Your task to perform on an android device: turn on translation in the chrome app Image 0: 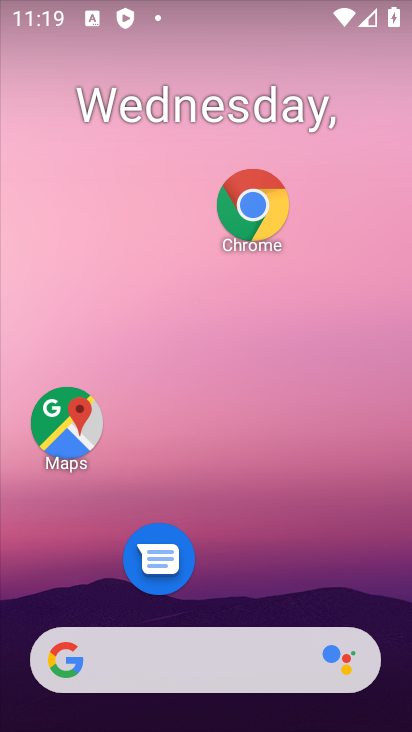
Step 0: drag from (298, 558) to (323, 0)
Your task to perform on an android device: turn on translation in the chrome app Image 1: 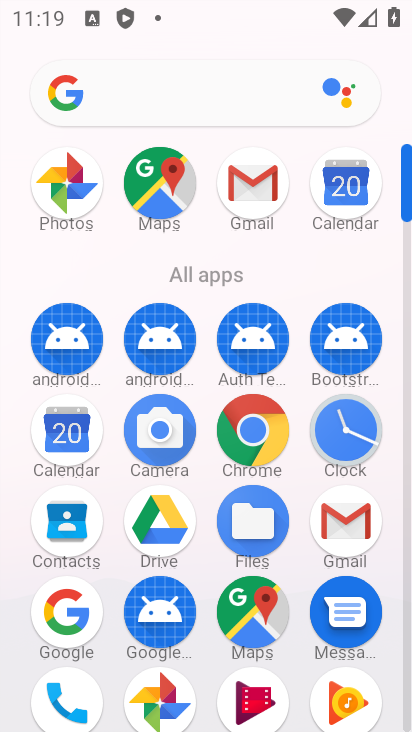
Step 1: click (258, 458)
Your task to perform on an android device: turn on translation in the chrome app Image 2: 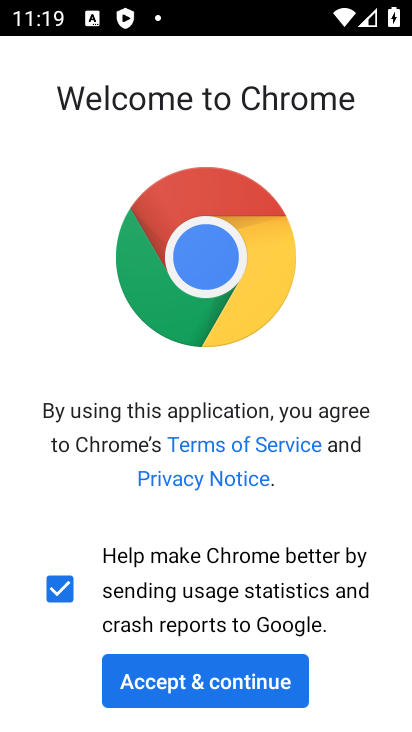
Step 2: click (250, 678)
Your task to perform on an android device: turn on translation in the chrome app Image 3: 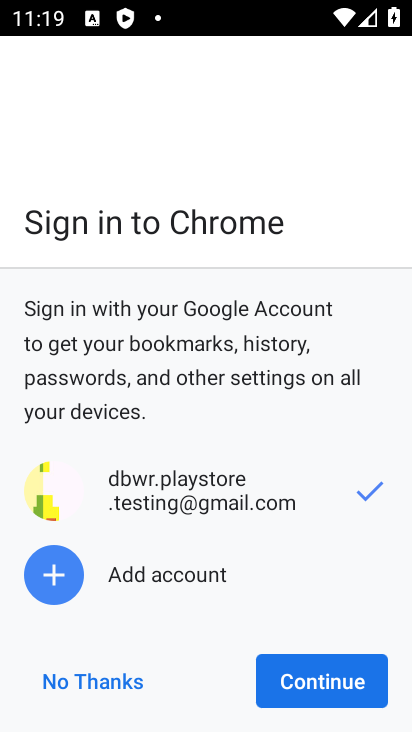
Step 3: click (141, 683)
Your task to perform on an android device: turn on translation in the chrome app Image 4: 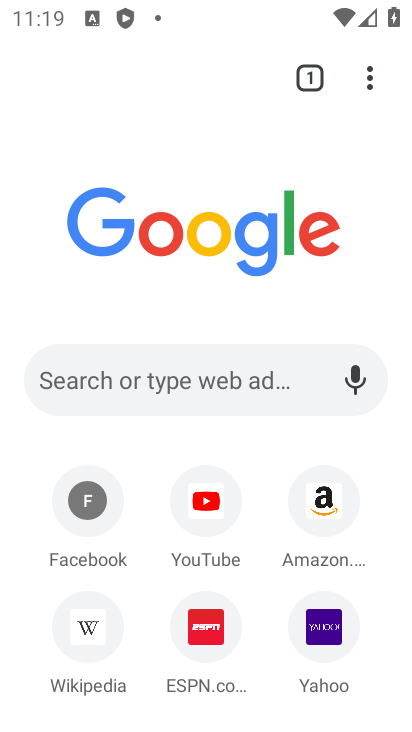
Step 4: click (369, 73)
Your task to perform on an android device: turn on translation in the chrome app Image 5: 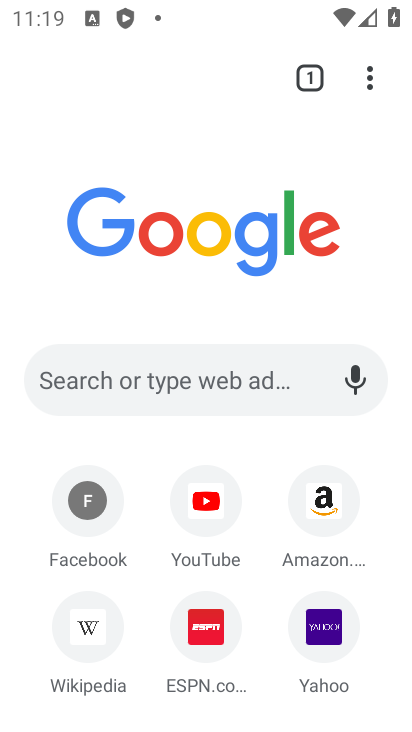
Step 5: drag from (367, 95) to (342, 253)
Your task to perform on an android device: turn on translation in the chrome app Image 6: 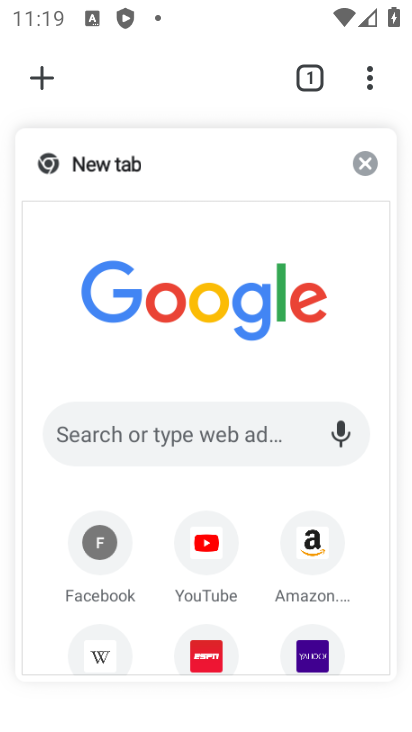
Step 6: drag from (368, 76) to (320, 279)
Your task to perform on an android device: turn on translation in the chrome app Image 7: 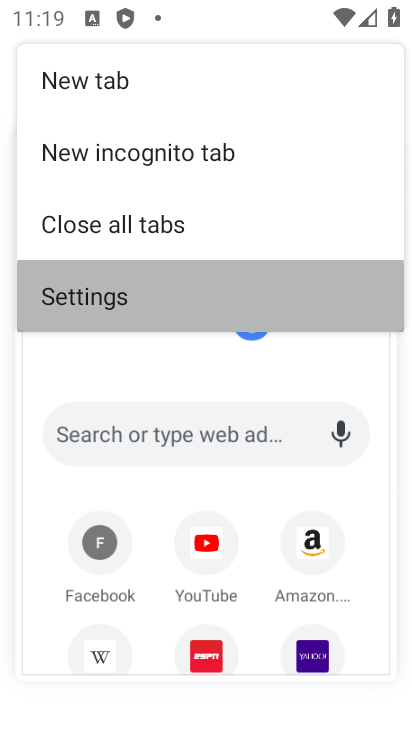
Step 7: click (313, 363)
Your task to perform on an android device: turn on translation in the chrome app Image 8: 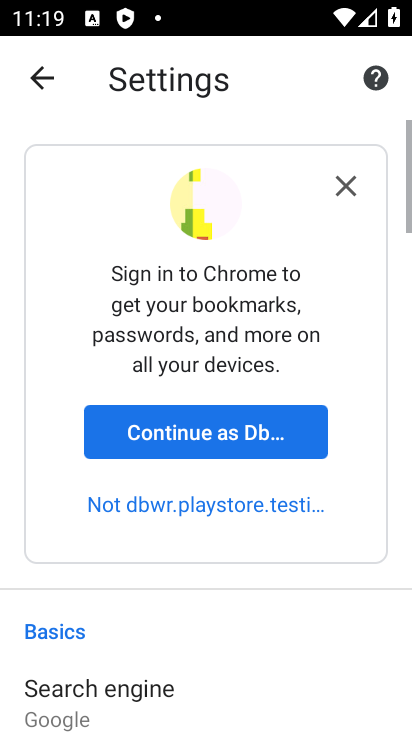
Step 8: press back button
Your task to perform on an android device: turn on translation in the chrome app Image 9: 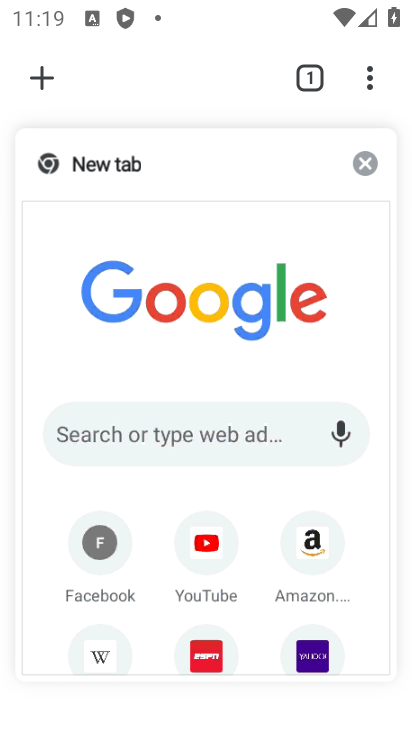
Step 9: click (40, 79)
Your task to perform on an android device: turn on translation in the chrome app Image 10: 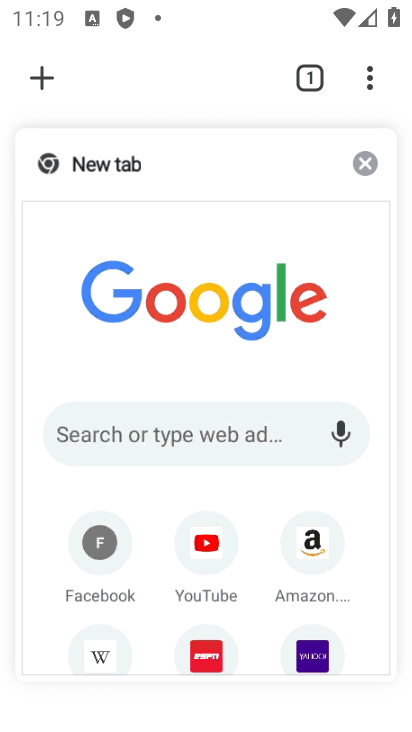
Step 10: click (318, 321)
Your task to perform on an android device: turn on translation in the chrome app Image 11: 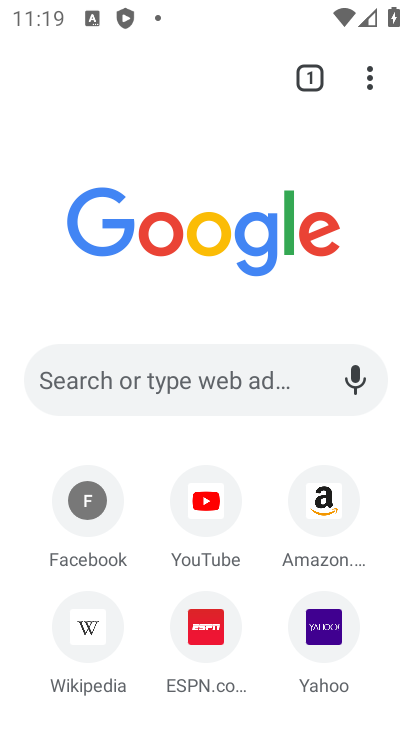
Step 11: drag from (368, 71) to (151, 617)
Your task to perform on an android device: turn on translation in the chrome app Image 12: 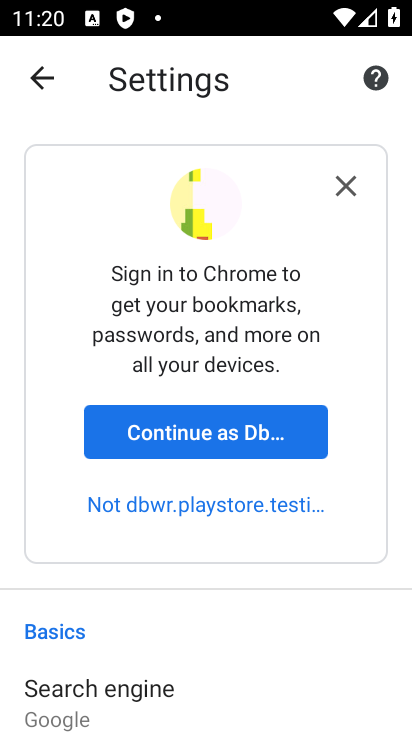
Step 12: drag from (249, 694) to (293, 21)
Your task to perform on an android device: turn on translation in the chrome app Image 13: 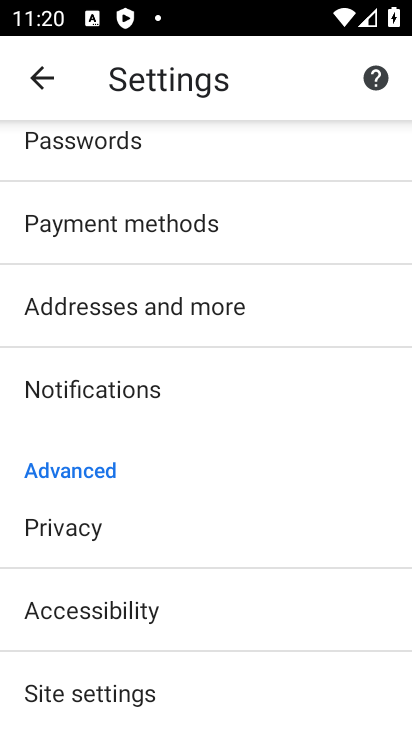
Step 13: drag from (207, 657) to (256, 86)
Your task to perform on an android device: turn on translation in the chrome app Image 14: 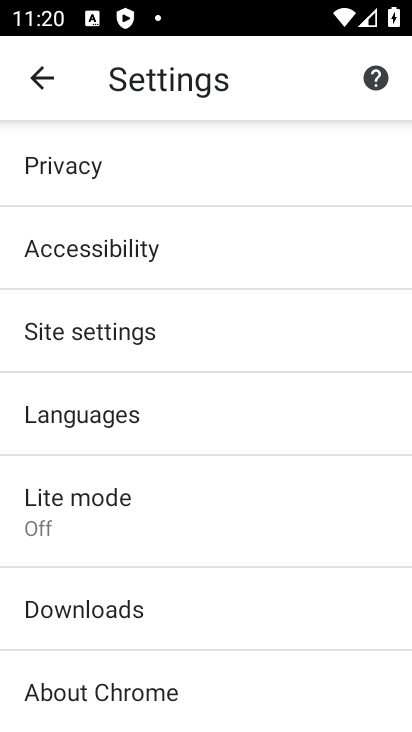
Step 14: click (149, 417)
Your task to perform on an android device: turn on translation in the chrome app Image 15: 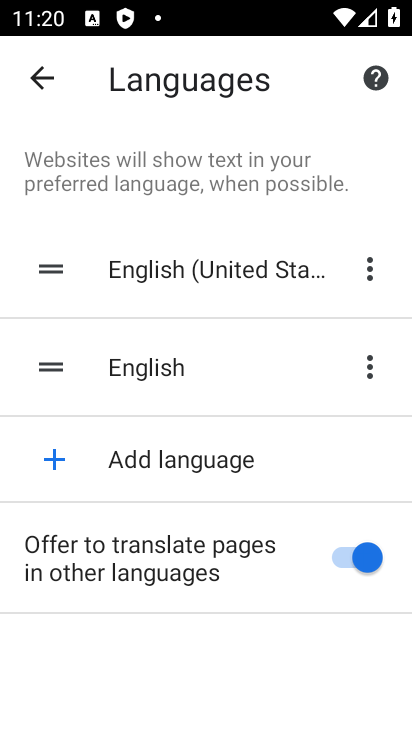
Step 15: task complete